Your task to perform on an android device: remove spam from my inbox in the gmail app Image 0: 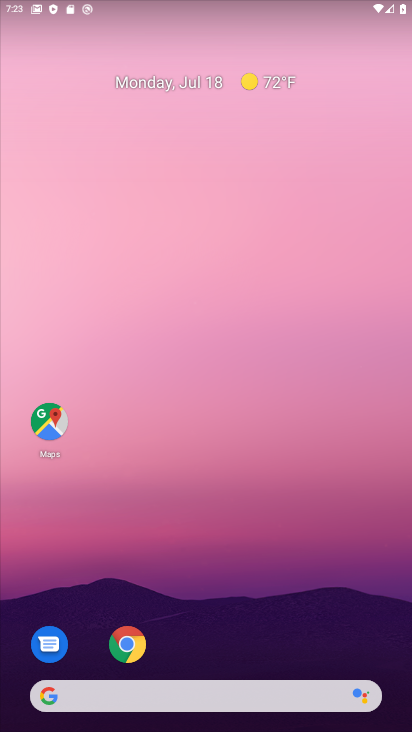
Step 0: drag from (392, 669) to (271, 49)
Your task to perform on an android device: remove spam from my inbox in the gmail app Image 1: 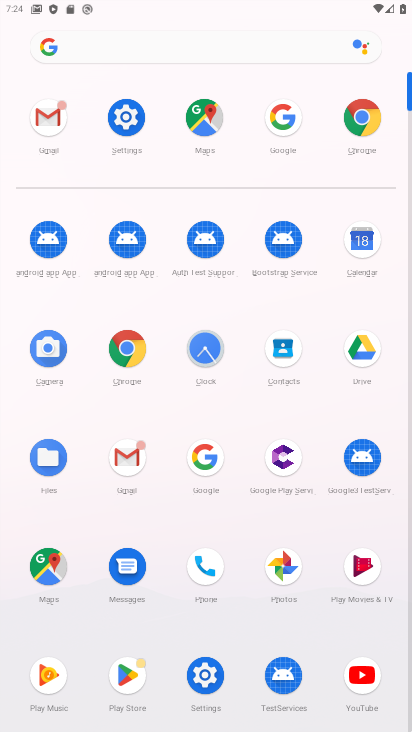
Step 1: click (126, 463)
Your task to perform on an android device: remove spam from my inbox in the gmail app Image 2: 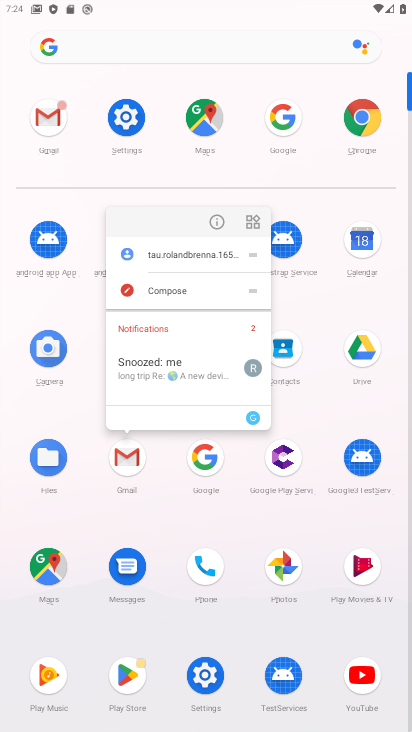
Step 2: click (126, 463)
Your task to perform on an android device: remove spam from my inbox in the gmail app Image 3: 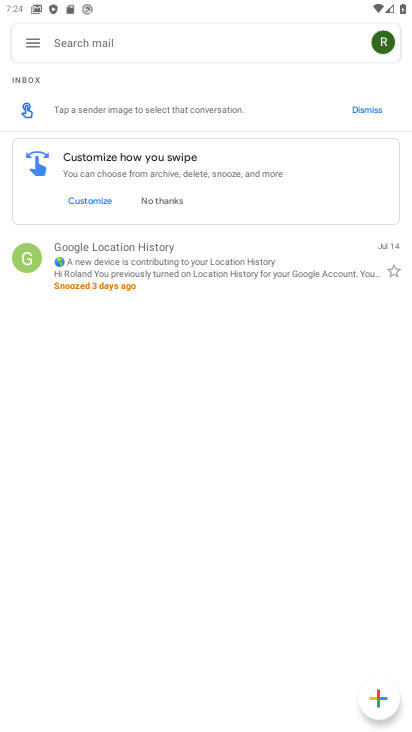
Step 3: click (31, 42)
Your task to perform on an android device: remove spam from my inbox in the gmail app Image 4: 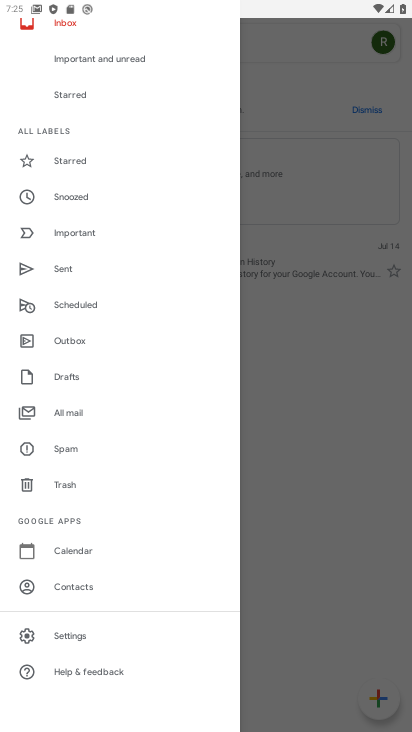
Step 4: task complete